Your task to perform on an android device: Open ESPN.com Image 0: 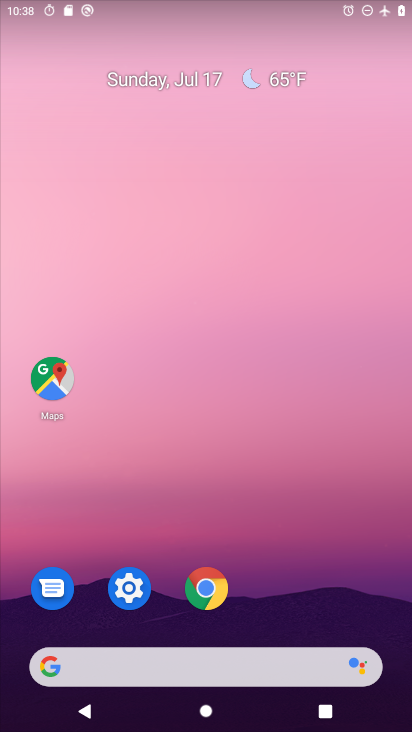
Step 0: drag from (280, 701) to (155, 216)
Your task to perform on an android device: Open ESPN.com Image 1: 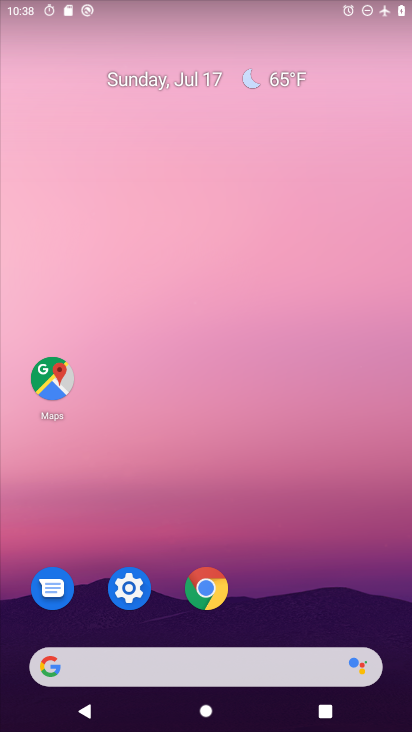
Step 1: drag from (226, 571) to (205, 6)
Your task to perform on an android device: Open ESPN.com Image 2: 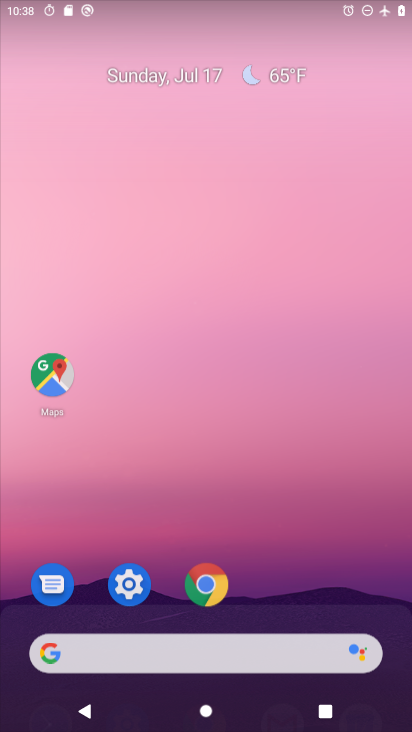
Step 2: drag from (265, 564) to (251, 80)
Your task to perform on an android device: Open ESPN.com Image 3: 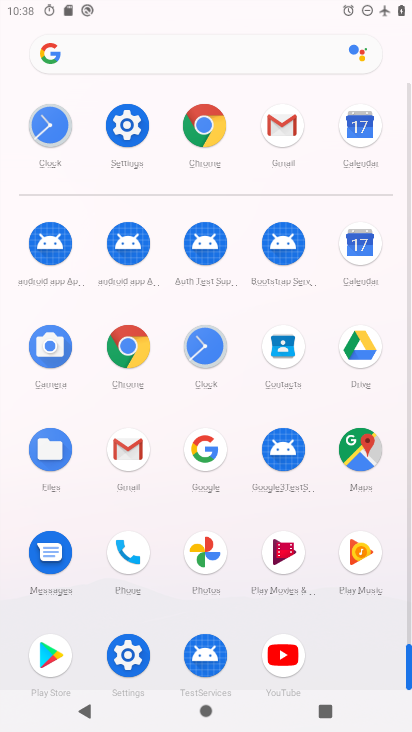
Step 3: click (218, 130)
Your task to perform on an android device: Open ESPN.com Image 4: 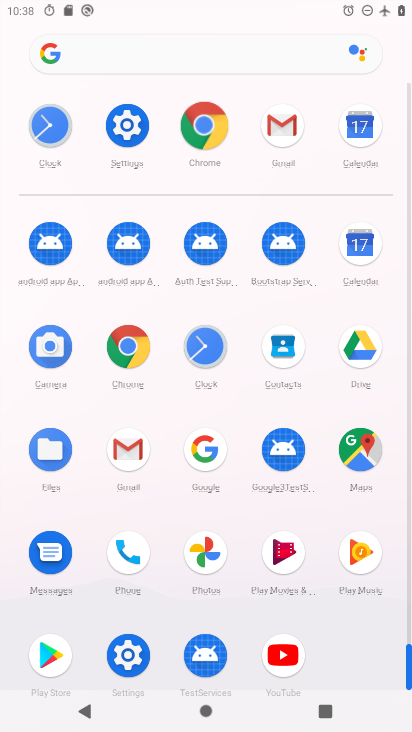
Step 4: click (217, 130)
Your task to perform on an android device: Open ESPN.com Image 5: 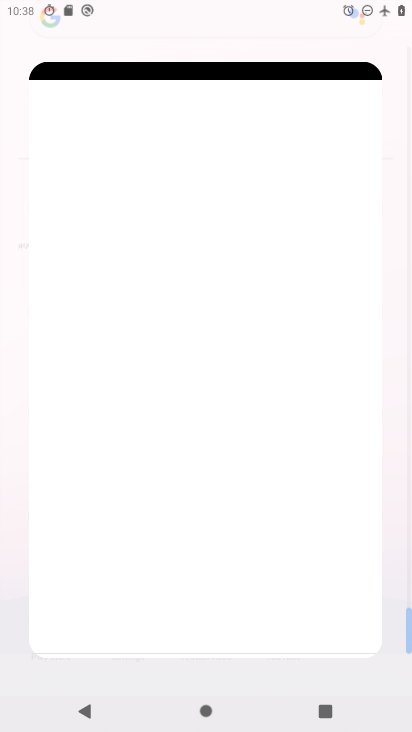
Step 5: click (217, 130)
Your task to perform on an android device: Open ESPN.com Image 6: 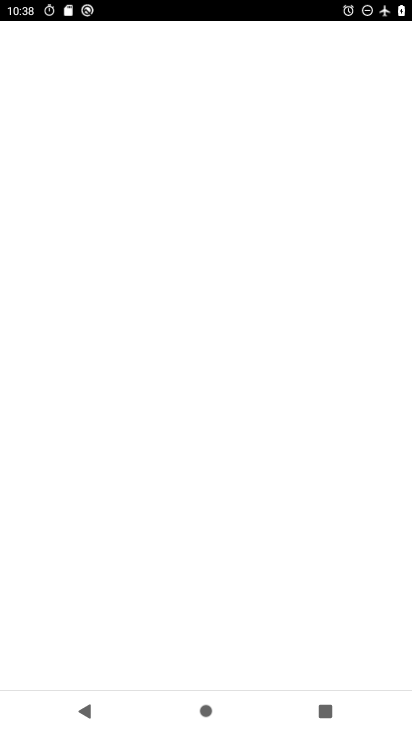
Step 6: click (214, 131)
Your task to perform on an android device: Open ESPN.com Image 7: 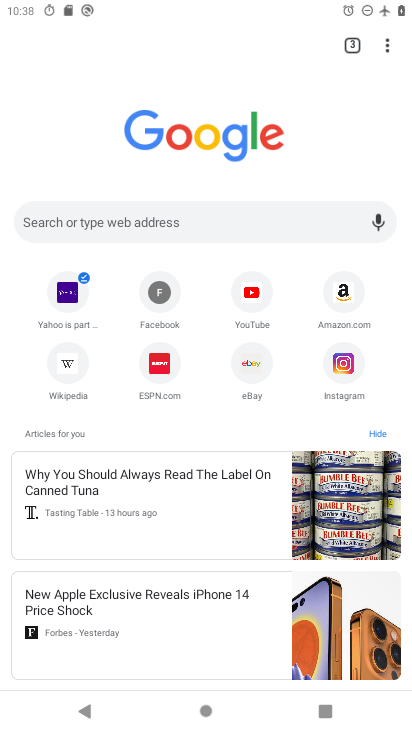
Step 7: click (155, 375)
Your task to perform on an android device: Open ESPN.com Image 8: 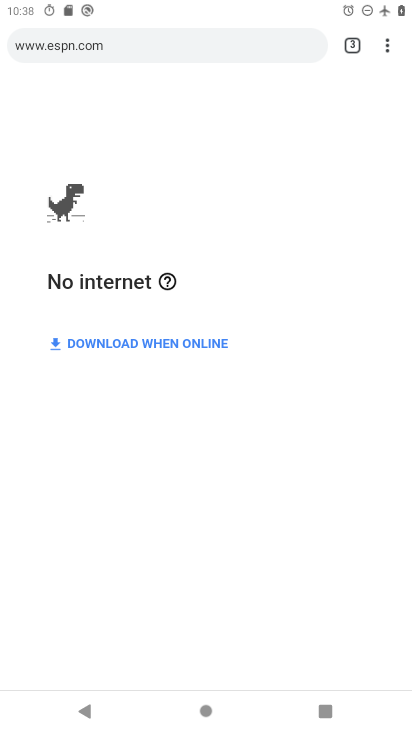
Step 8: press back button
Your task to perform on an android device: Open ESPN.com Image 9: 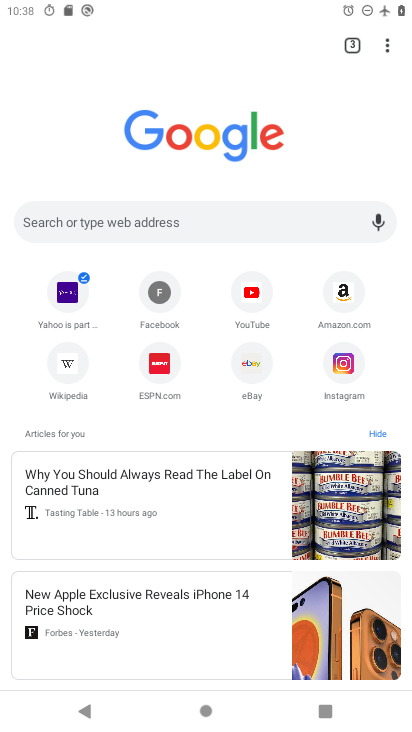
Step 9: click (163, 360)
Your task to perform on an android device: Open ESPN.com Image 10: 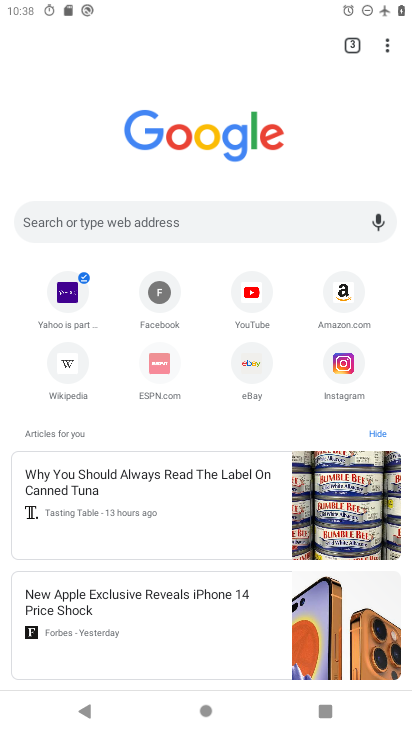
Step 10: click (159, 364)
Your task to perform on an android device: Open ESPN.com Image 11: 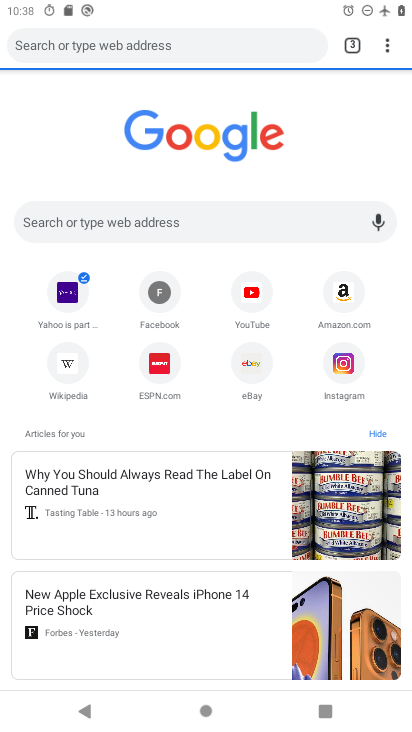
Step 11: click (170, 362)
Your task to perform on an android device: Open ESPN.com Image 12: 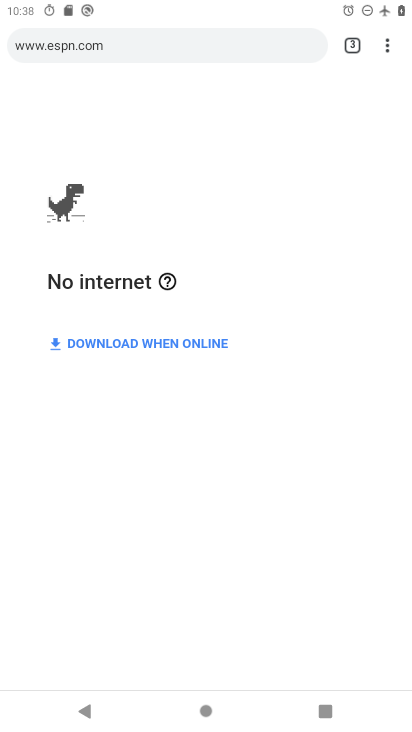
Step 12: task complete